Your task to perform on an android device: open a bookmark in the chrome app Image 0: 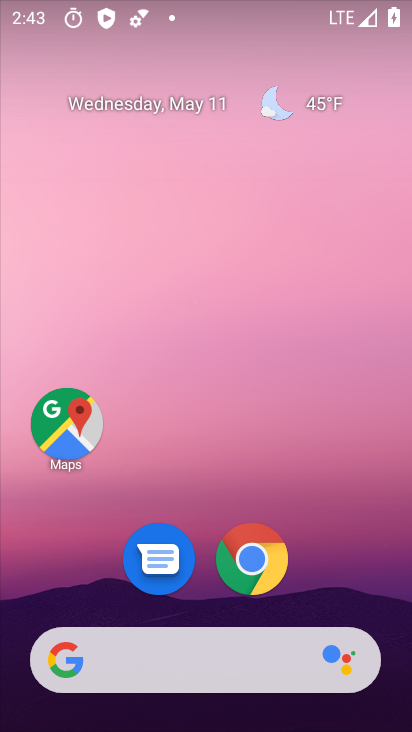
Step 0: click (252, 557)
Your task to perform on an android device: open a bookmark in the chrome app Image 1: 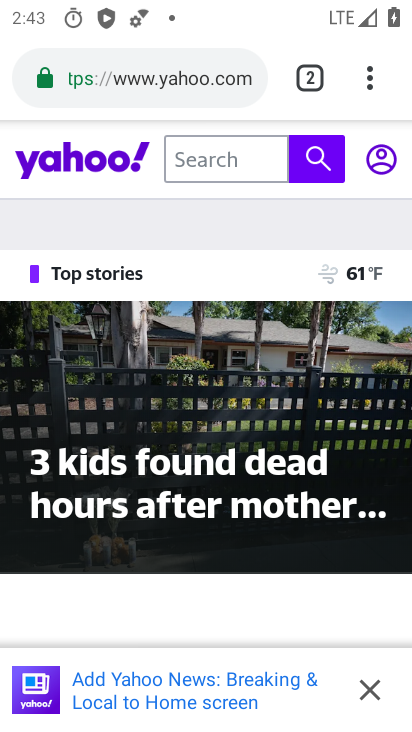
Step 1: click (365, 82)
Your task to perform on an android device: open a bookmark in the chrome app Image 2: 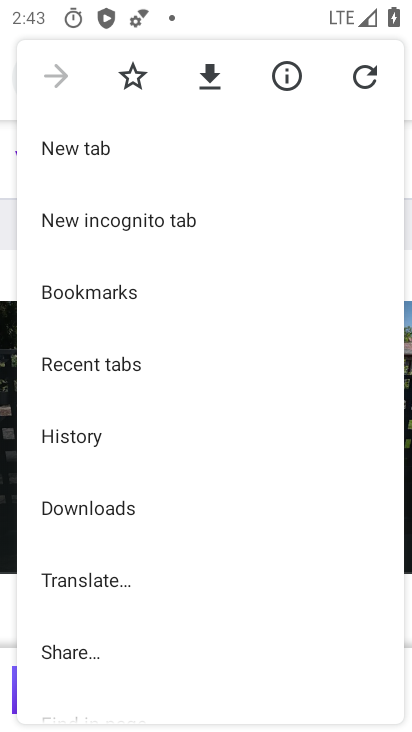
Step 2: drag from (193, 552) to (142, 145)
Your task to perform on an android device: open a bookmark in the chrome app Image 3: 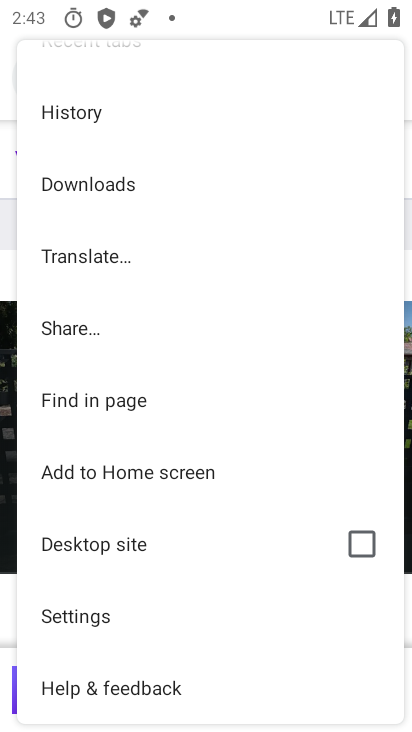
Step 3: drag from (200, 195) to (175, 663)
Your task to perform on an android device: open a bookmark in the chrome app Image 4: 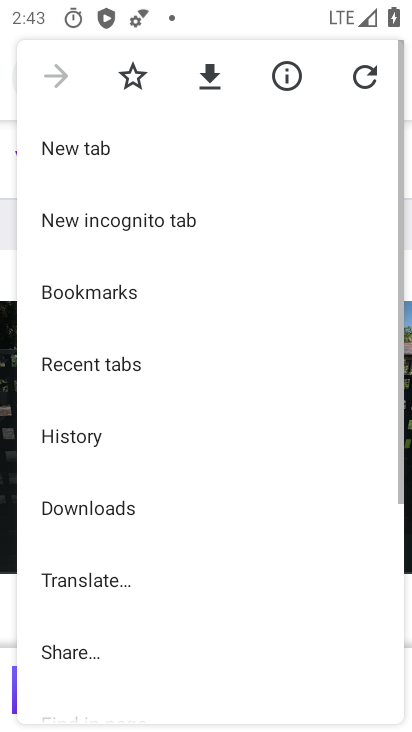
Step 4: click (127, 288)
Your task to perform on an android device: open a bookmark in the chrome app Image 5: 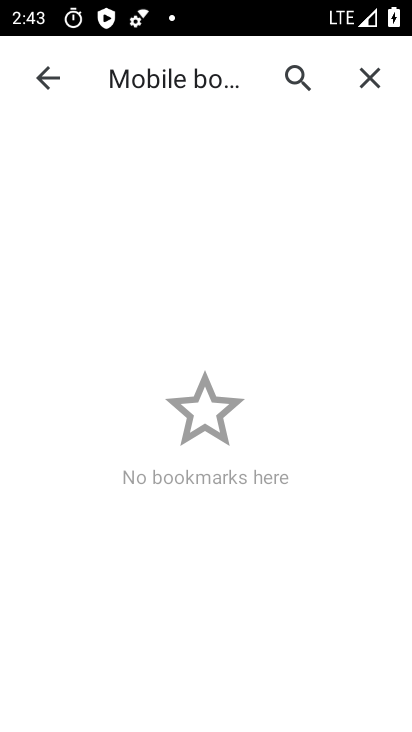
Step 5: task complete